Your task to perform on an android device: turn off data saver in the chrome app Image 0: 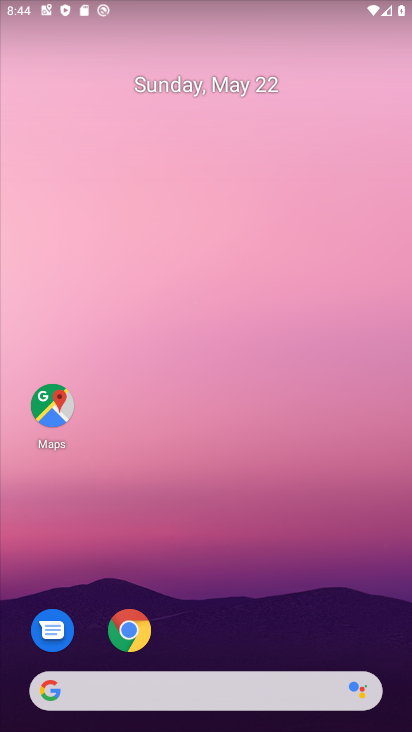
Step 0: click (261, 614)
Your task to perform on an android device: turn off data saver in the chrome app Image 1: 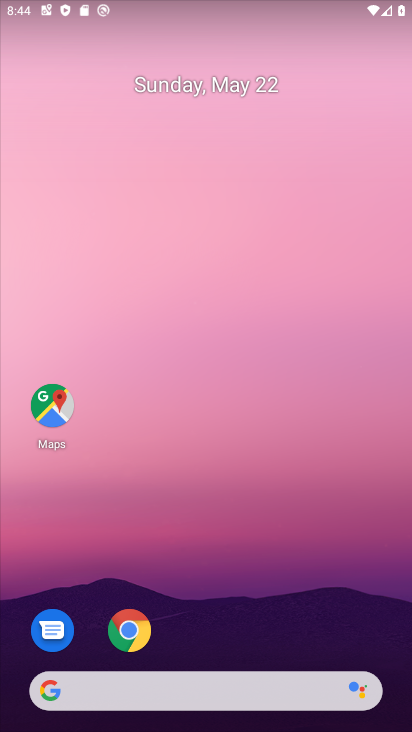
Step 1: click (124, 628)
Your task to perform on an android device: turn off data saver in the chrome app Image 2: 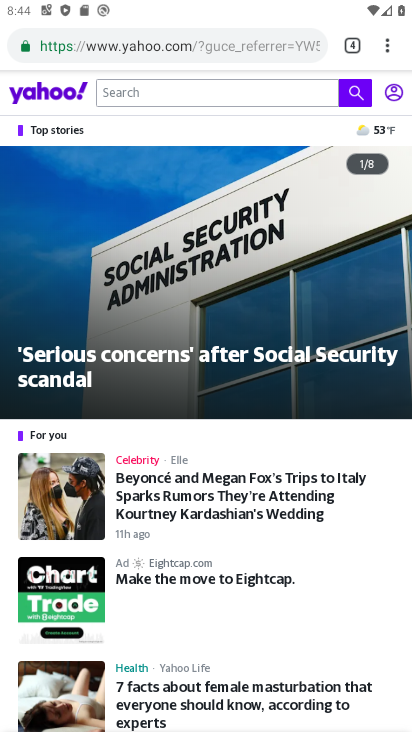
Step 2: click (391, 51)
Your task to perform on an android device: turn off data saver in the chrome app Image 3: 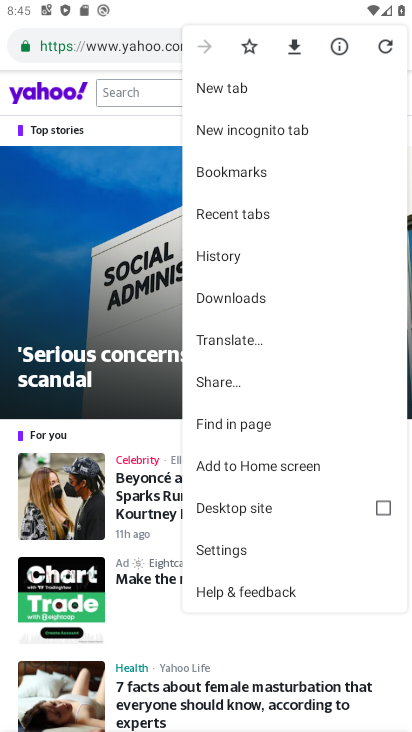
Step 3: click (232, 538)
Your task to perform on an android device: turn off data saver in the chrome app Image 4: 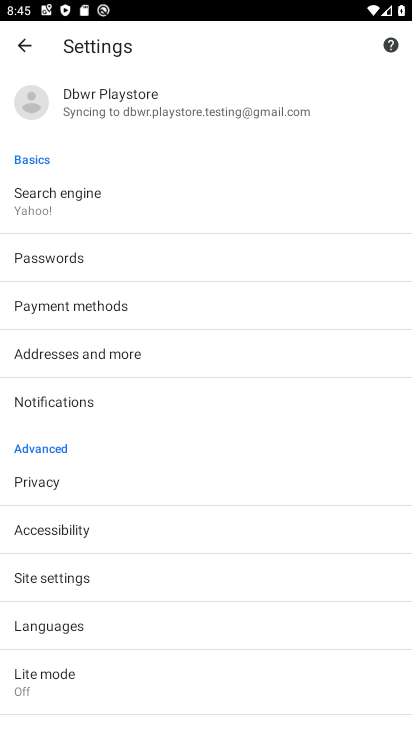
Step 4: click (133, 665)
Your task to perform on an android device: turn off data saver in the chrome app Image 5: 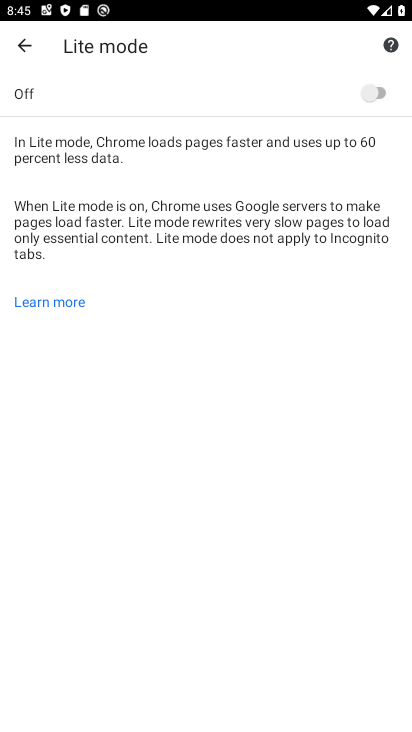
Step 5: click (379, 106)
Your task to perform on an android device: turn off data saver in the chrome app Image 6: 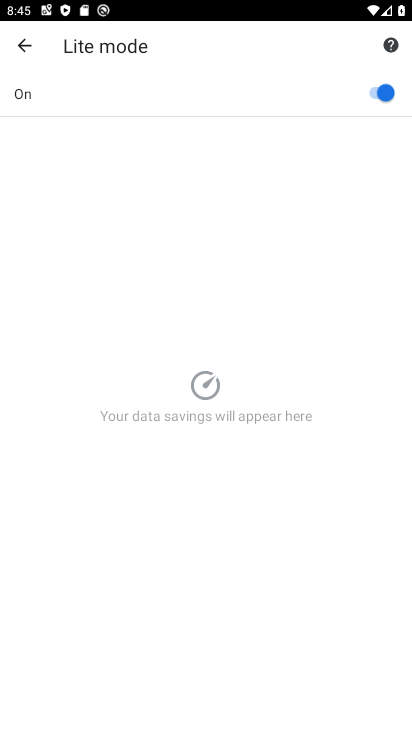
Step 6: task complete